Your task to perform on an android device: Go to CNN.com Image 0: 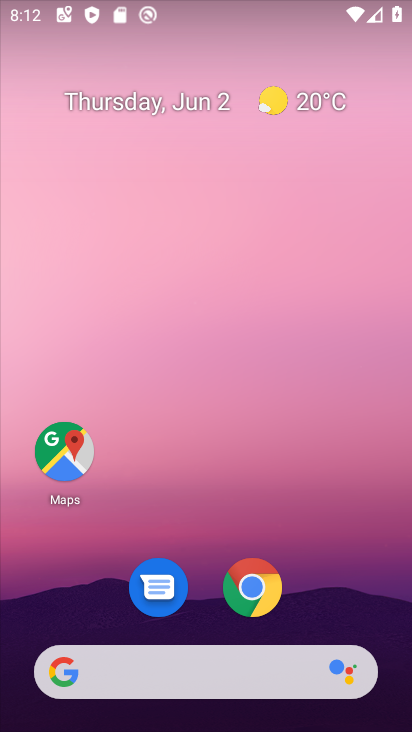
Step 0: click (160, 684)
Your task to perform on an android device: Go to CNN.com Image 1: 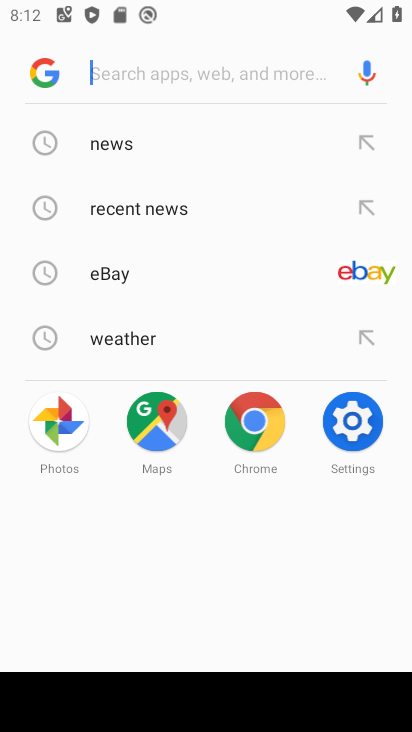
Step 1: type "cnn"
Your task to perform on an android device: Go to CNN.com Image 2: 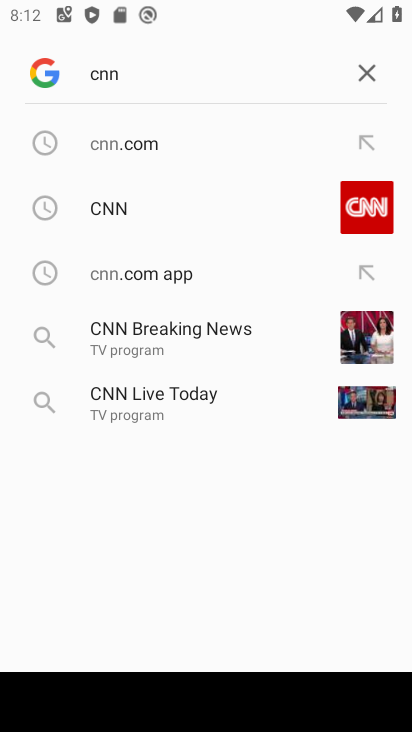
Step 2: click (149, 199)
Your task to perform on an android device: Go to CNN.com Image 3: 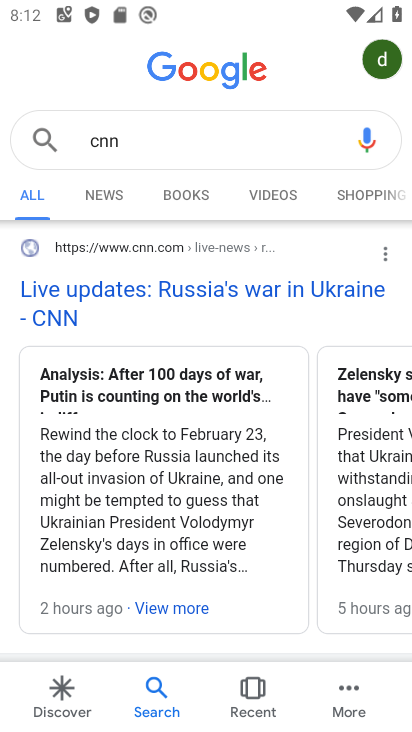
Step 3: task complete